Your task to perform on an android device: move a message to another label in the gmail app Image 0: 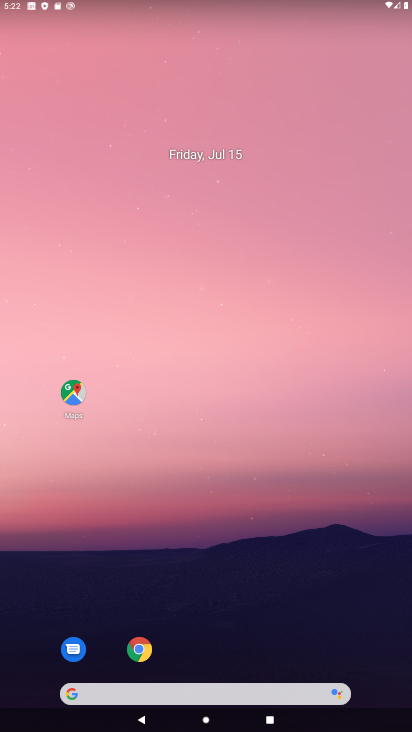
Step 0: drag from (212, 696) to (218, 255)
Your task to perform on an android device: move a message to another label in the gmail app Image 1: 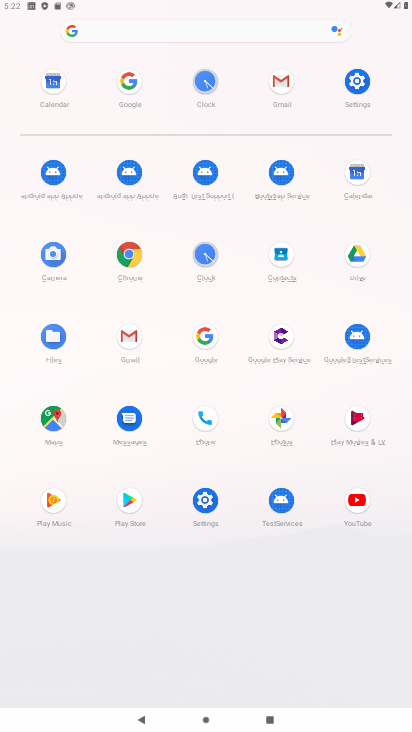
Step 1: click (279, 81)
Your task to perform on an android device: move a message to another label in the gmail app Image 2: 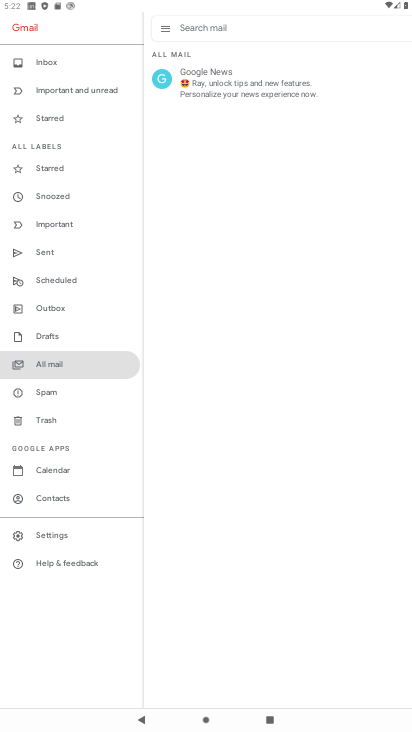
Step 2: click (279, 81)
Your task to perform on an android device: move a message to another label in the gmail app Image 3: 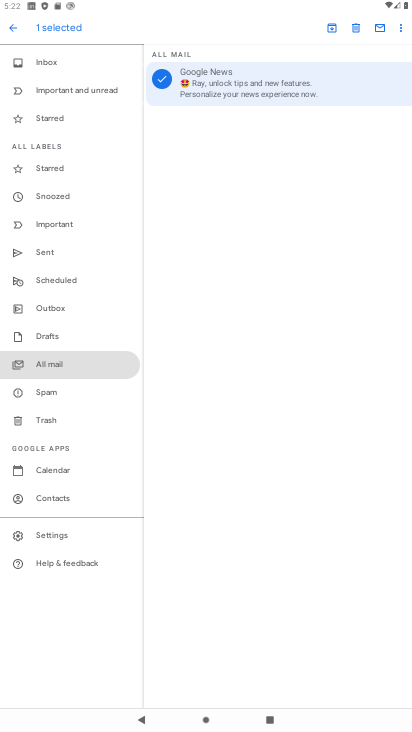
Step 3: click (402, 30)
Your task to perform on an android device: move a message to another label in the gmail app Image 4: 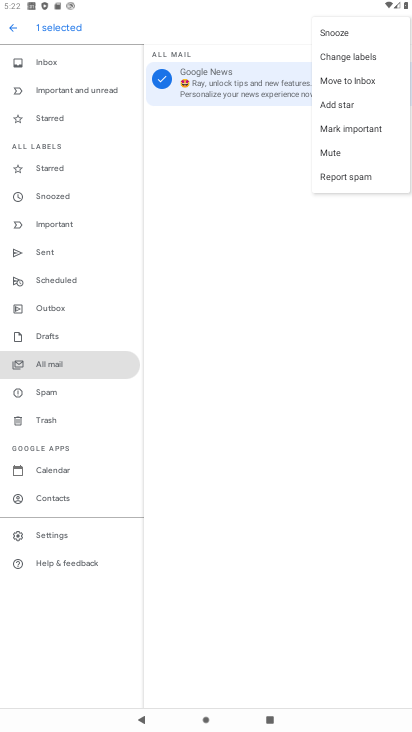
Step 4: click (368, 61)
Your task to perform on an android device: move a message to another label in the gmail app Image 5: 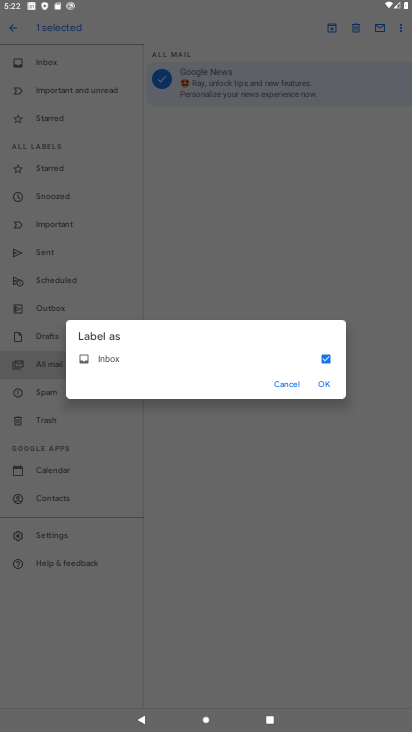
Step 5: click (328, 380)
Your task to perform on an android device: move a message to another label in the gmail app Image 6: 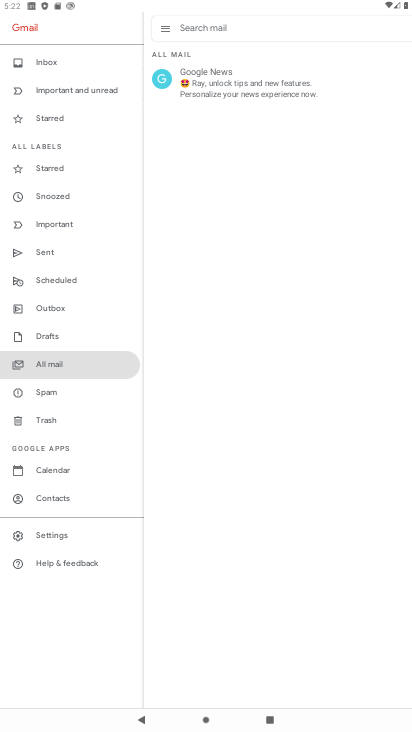
Step 6: task complete